Your task to perform on an android device: What is the speed of a tiger? Image 0: 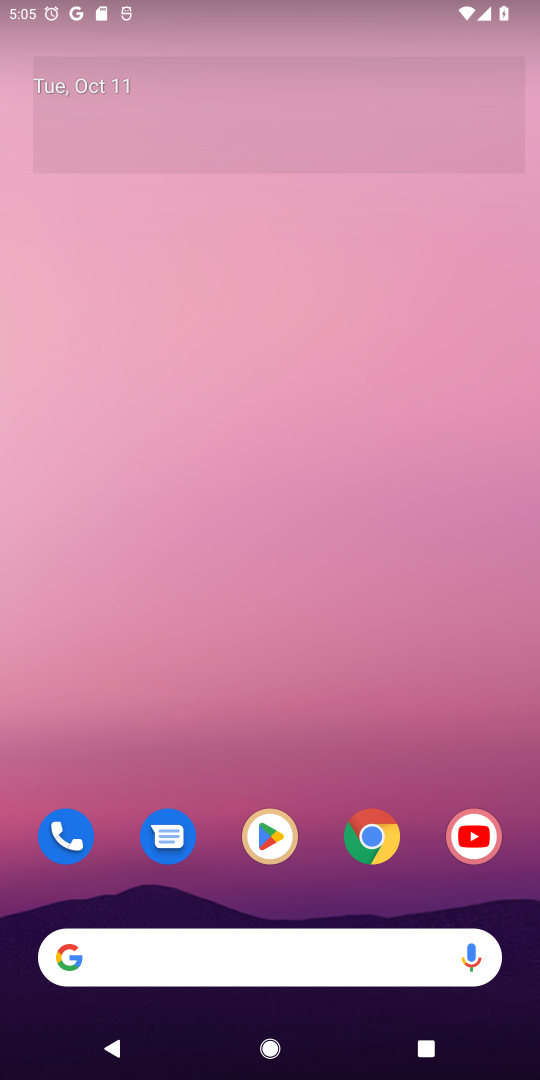
Step 0: click (303, 933)
Your task to perform on an android device: What is the speed of a tiger? Image 1: 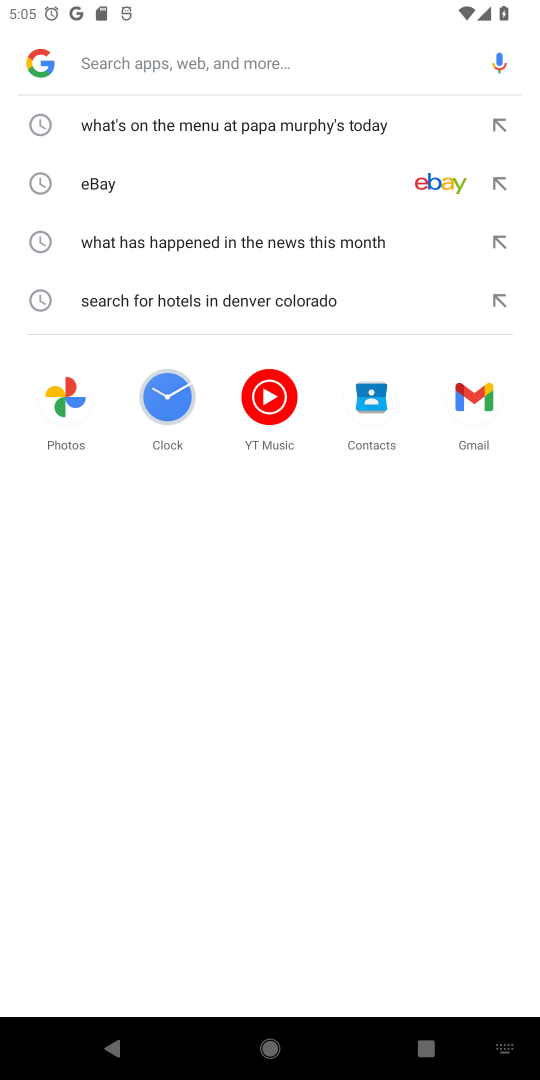
Step 1: type "What is the speed of a tiger?"
Your task to perform on an android device: What is the speed of a tiger? Image 2: 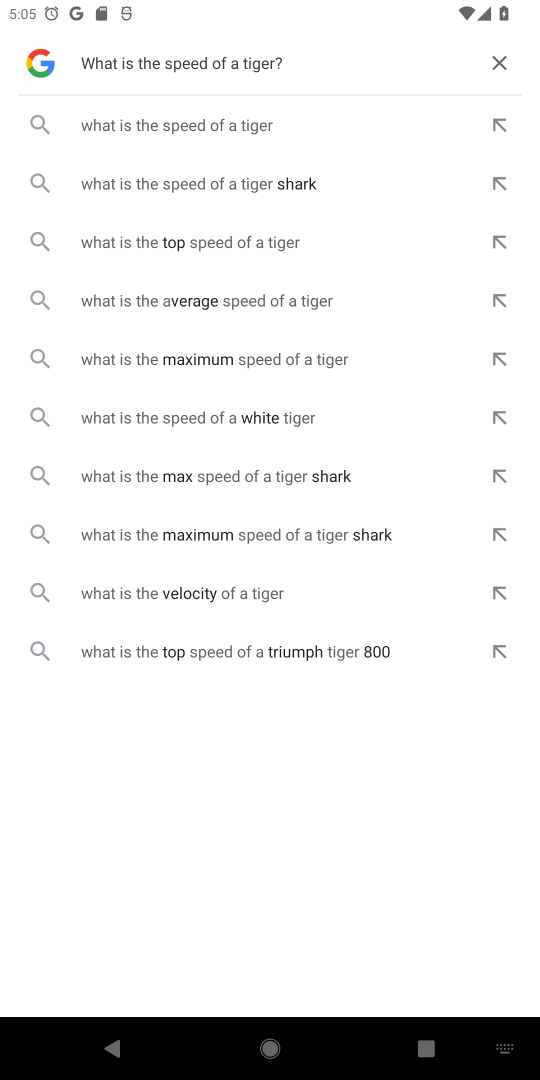
Step 2: click (244, 106)
Your task to perform on an android device: What is the speed of a tiger? Image 3: 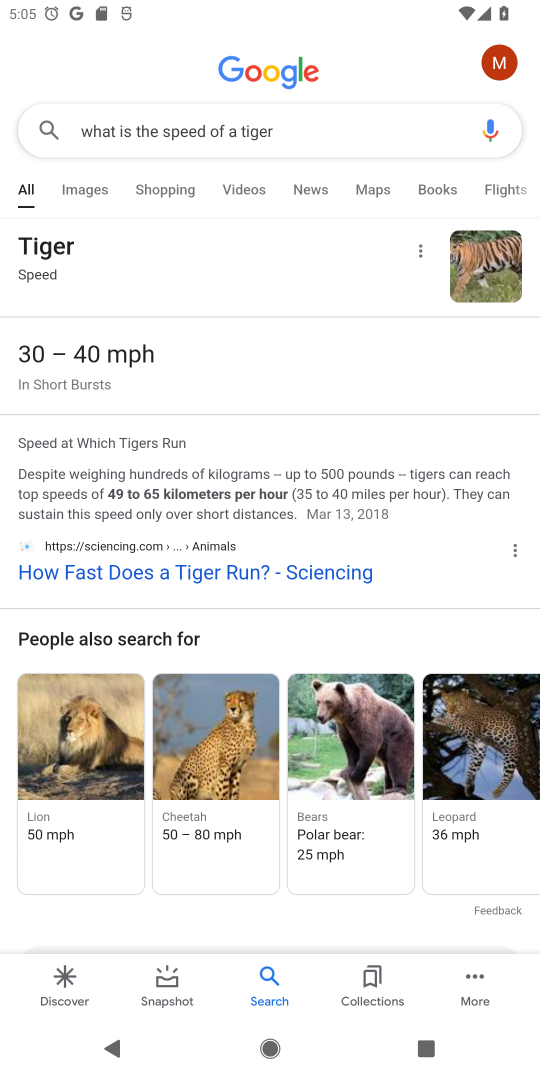
Step 3: task complete